Your task to perform on an android device: toggle location history Image 0: 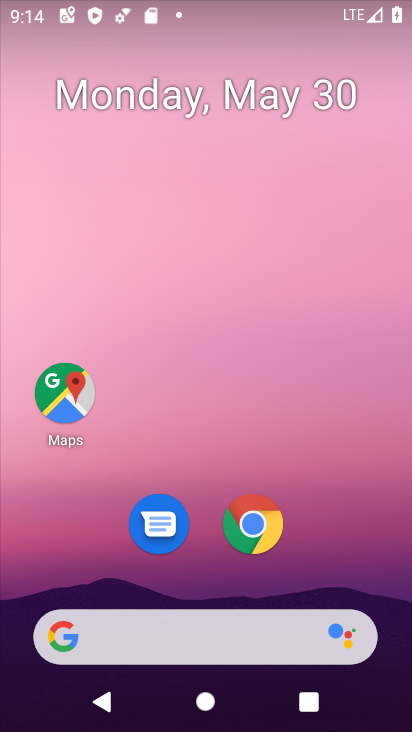
Step 0: drag from (329, 518) to (326, 47)
Your task to perform on an android device: toggle location history Image 1: 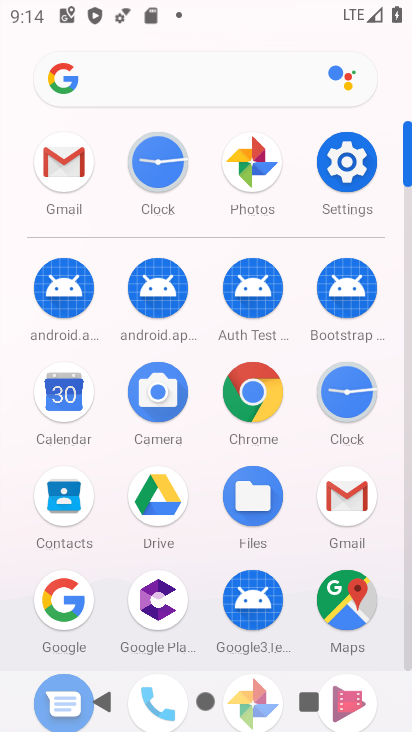
Step 1: click (345, 164)
Your task to perform on an android device: toggle location history Image 2: 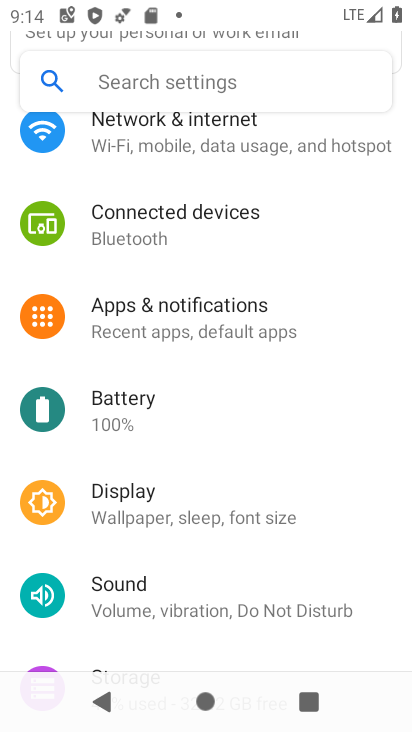
Step 2: drag from (222, 469) to (229, 39)
Your task to perform on an android device: toggle location history Image 3: 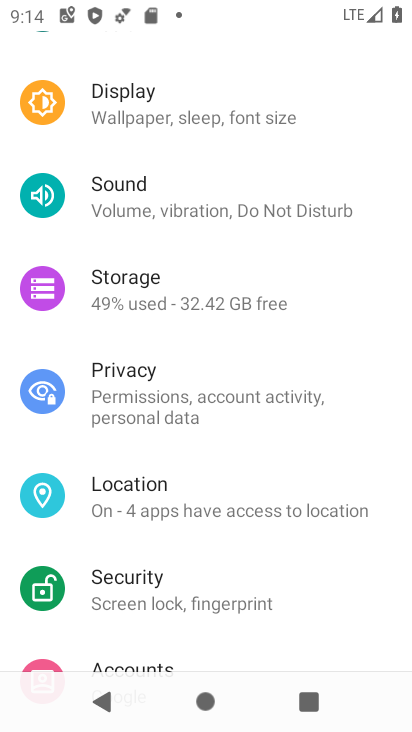
Step 3: click (222, 489)
Your task to perform on an android device: toggle location history Image 4: 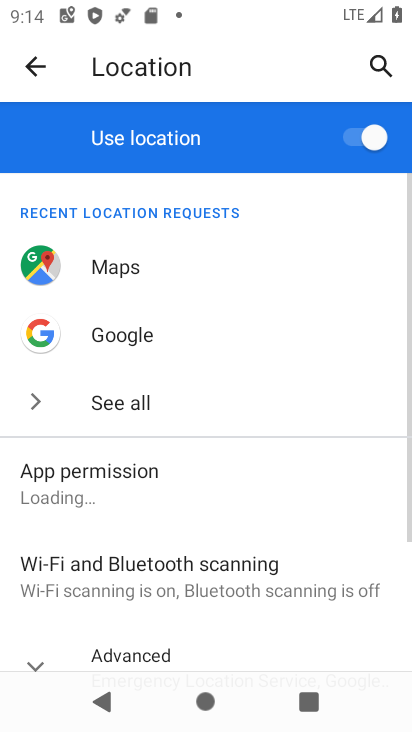
Step 4: drag from (222, 514) to (229, 131)
Your task to perform on an android device: toggle location history Image 5: 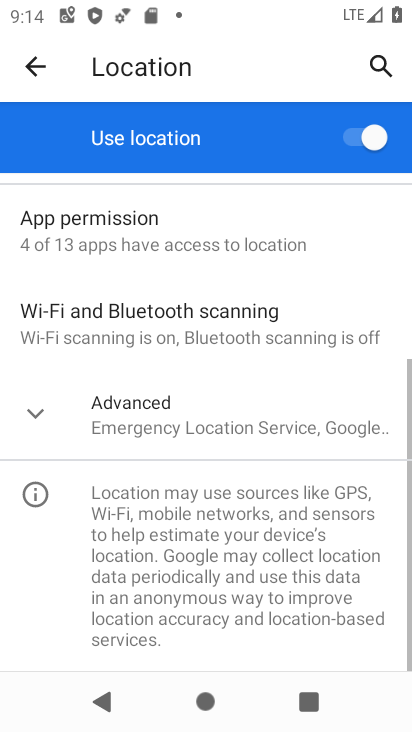
Step 5: click (35, 416)
Your task to perform on an android device: toggle location history Image 6: 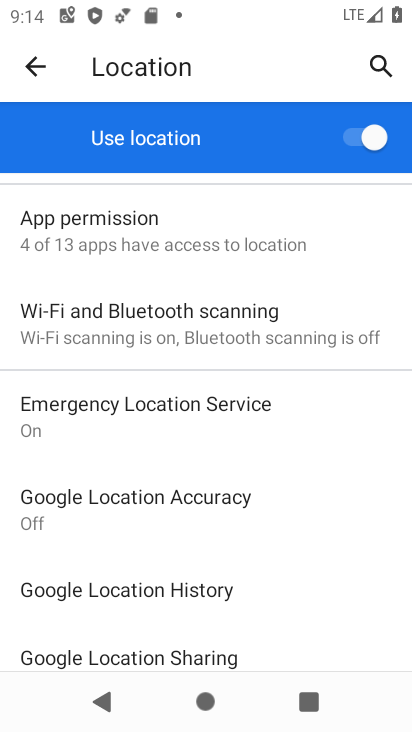
Step 6: click (208, 610)
Your task to perform on an android device: toggle location history Image 7: 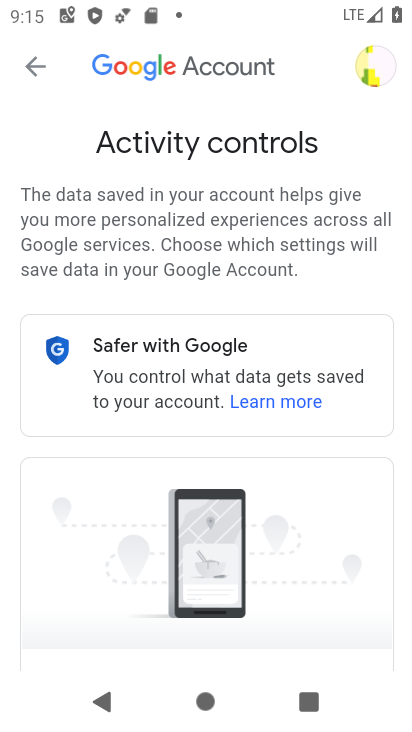
Step 7: drag from (308, 555) to (292, 87)
Your task to perform on an android device: toggle location history Image 8: 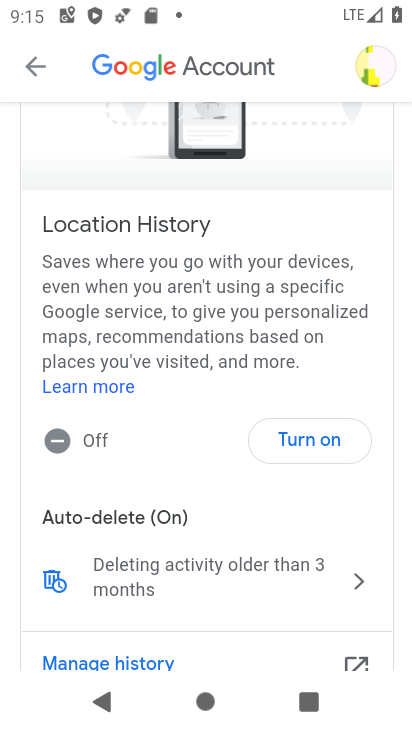
Step 8: click (331, 437)
Your task to perform on an android device: toggle location history Image 9: 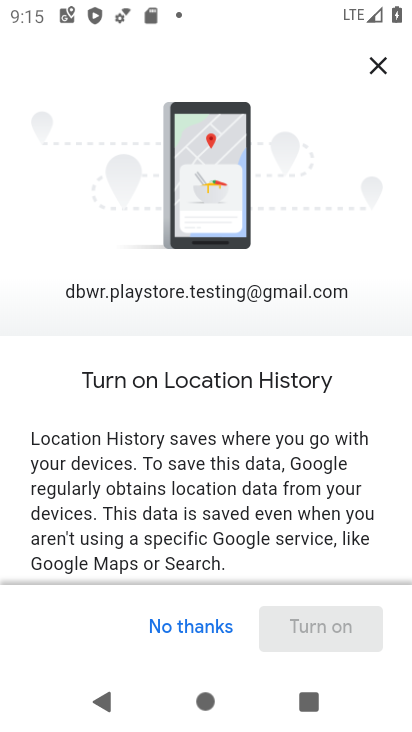
Step 9: drag from (184, 519) to (236, 8)
Your task to perform on an android device: toggle location history Image 10: 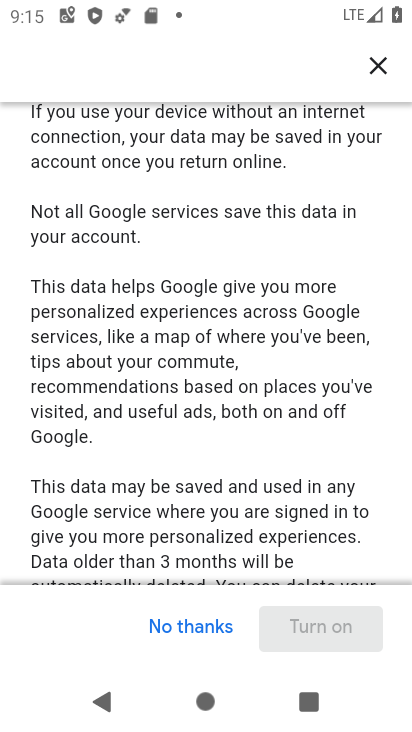
Step 10: drag from (260, 471) to (262, 49)
Your task to perform on an android device: toggle location history Image 11: 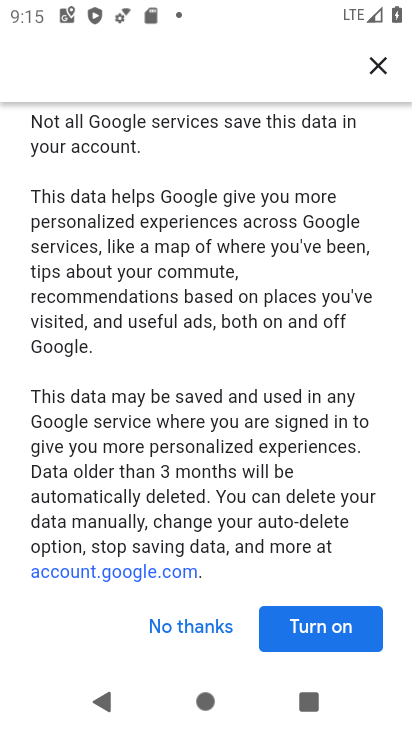
Step 11: click (342, 631)
Your task to perform on an android device: toggle location history Image 12: 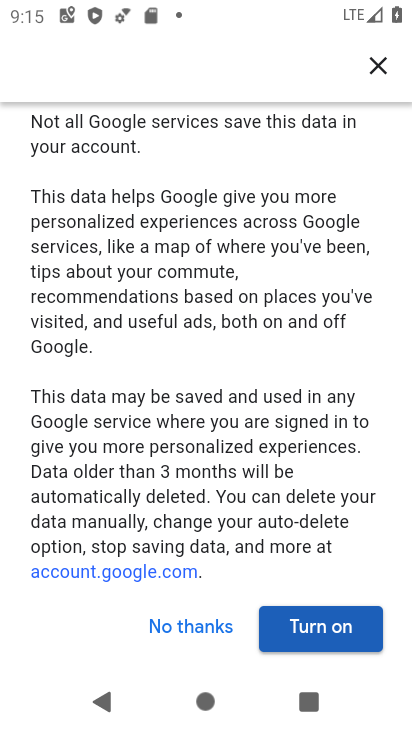
Step 12: click (354, 618)
Your task to perform on an android device: toggle location history Image 13: 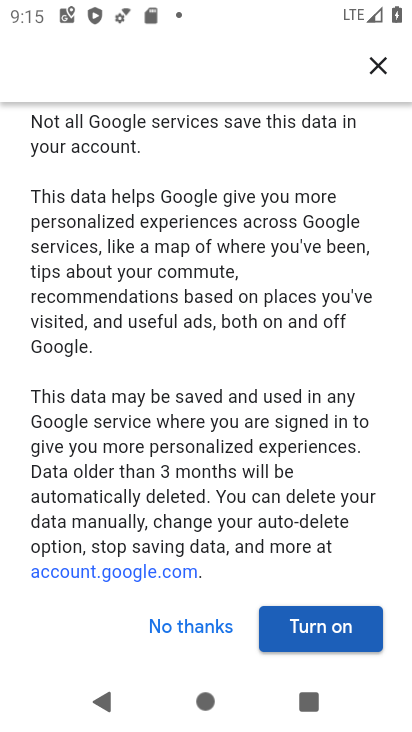
Step 13: click (354, 618)
Your task to perform on an android device: toggle location history Image 14: 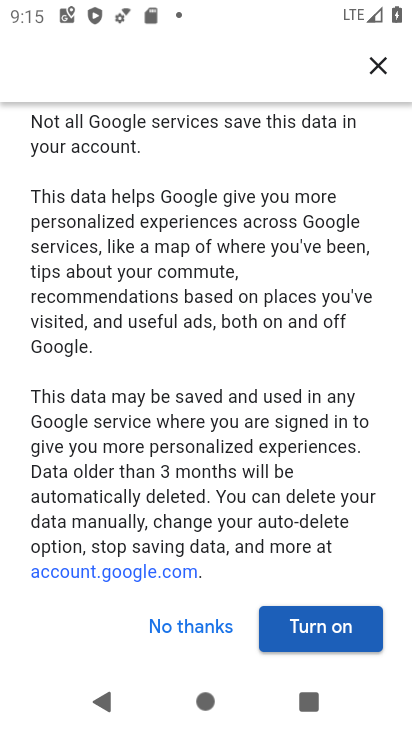
Step 14: click (352, 618)
Your task to perform on an android device: toggle location history Image 15: 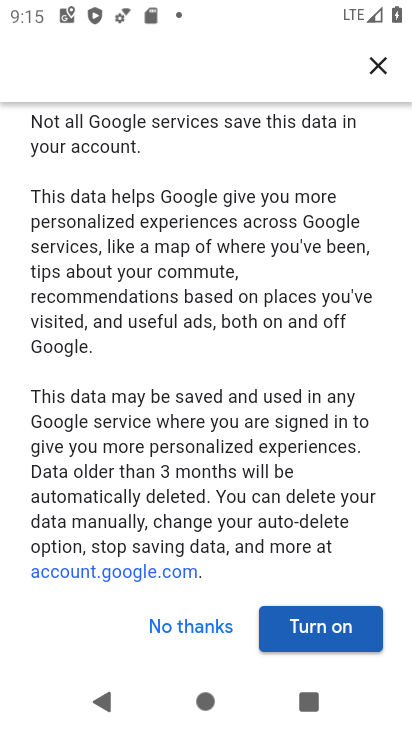
Step 15: click (352, 633)
Your task to perform on an android device: toggle location history Image 16: 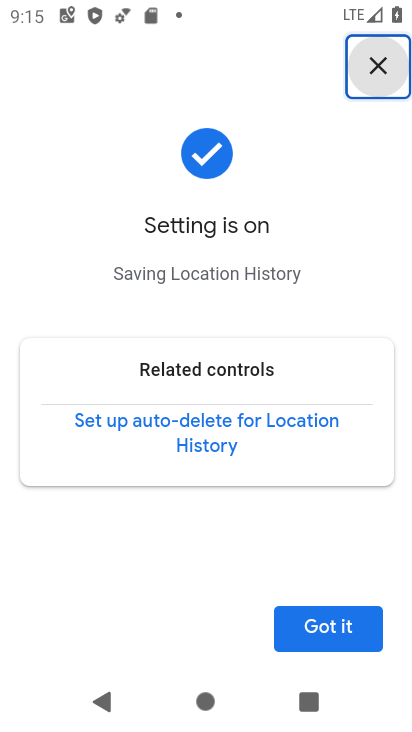
Step 16: click (352, 633)
Your task to perform on an android device: toggle location history Image 17: 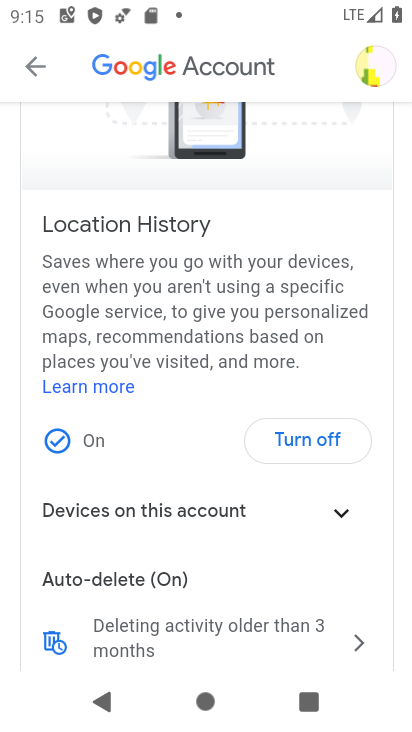
Step 17: task complete